Your task to perform on an android device: open app "ZOOM Cloud Meetings" (install if not already installed) and enter user name: "bauxite@icloud.com" and password: "dim" Image 0: 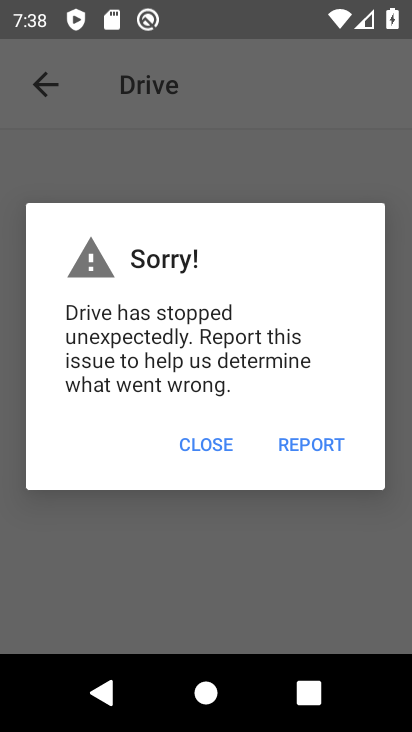
Step 0: press home button
Your task to perform on an android device: open app "ZOOM Cloud Meetings" (install if not already installed) and enter user name: "bauxite@icloud.com" and password: "dim" Image 1: 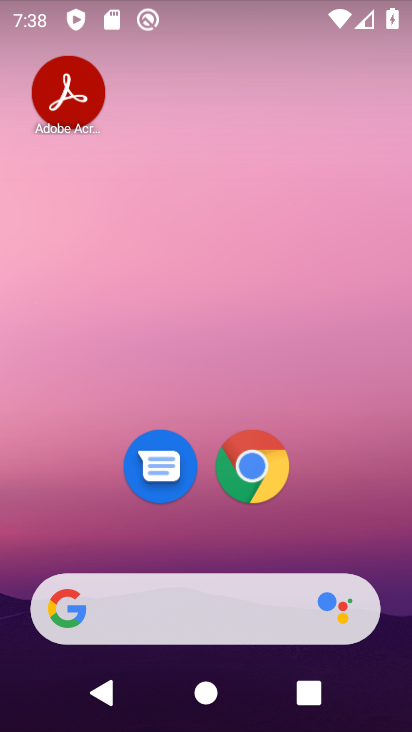
Step 1: drag from (157, 609) to (232, 96)
Your task to perform on an android device: open app "ZOOM Cloud Meetings" (install if not already installed) and enter user name: "bauxite@icloud.com" and password: "dim" Image 2: 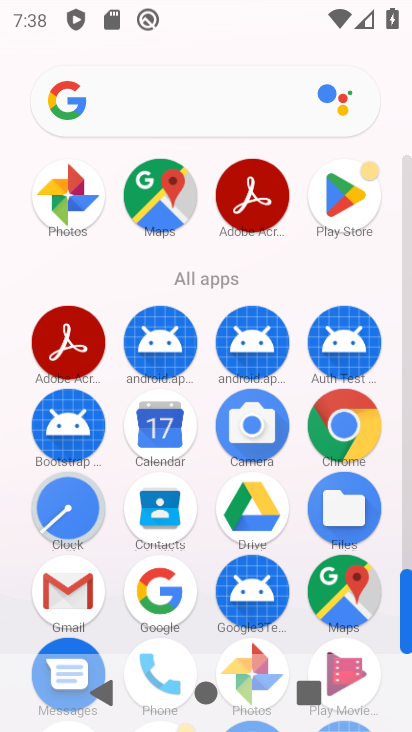
Step 2: click (342, 193)
Your task to perform on an android device: open app "ZOOM Cloud Meetings" (install if not already installed) and enter user name: "bauxite@icloud.com" and password: "dim" Image 3: 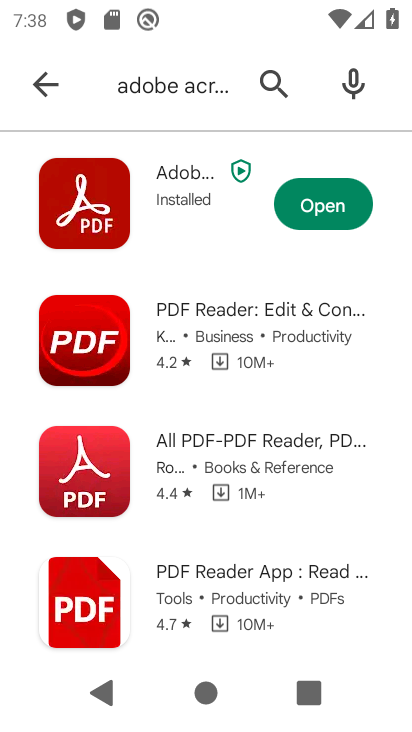
Step 3: press back button
Your task to perform on an android device: open app "ZOOM Cloud Meetings" (install if not already installed) and enter user name: "bauxite@icloud.com" and password: "dim" Image 4: 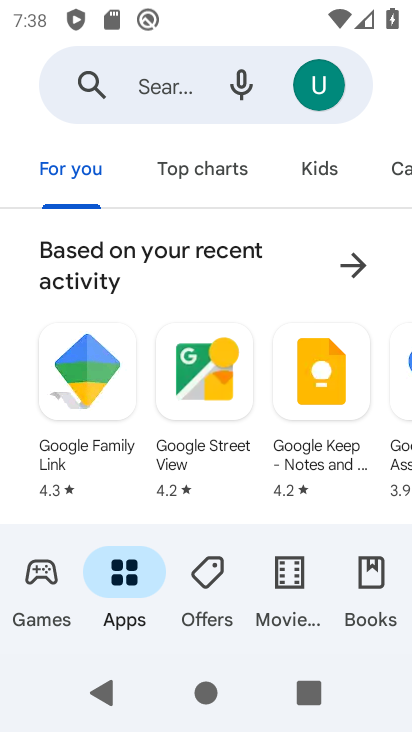
Step 4: click (185, 91)
Your task to perform on an android device: open app "ZOOM Cloud Meetings" (install if not already installed) and enter user name: "bauxite@icloud.com" and password: "dim" Image 5: 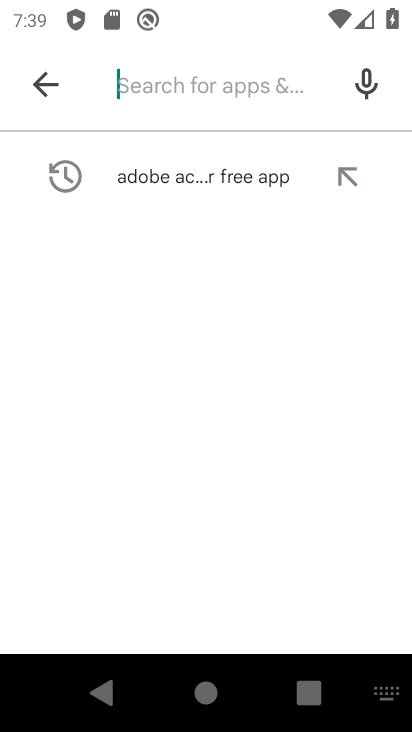
Step 5: click (152, 80)
Your task to perform on an android device: open app "ZOOM Cloud Meetings" (install if not already installed) and enter user name: "bauxite@icloud.com" and password: "dim" Image 6: 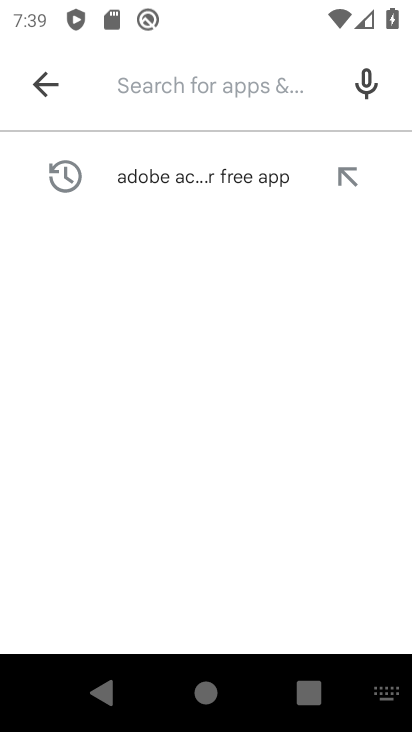
Step 6: type "ZOOM Cloud Meetings"
Your task to perform on an android device: open app "ZOOM Cloud Meetings" (install if not already installed) and enter user name: "bauxite@icloud.com" and password: "dim" Image 7: 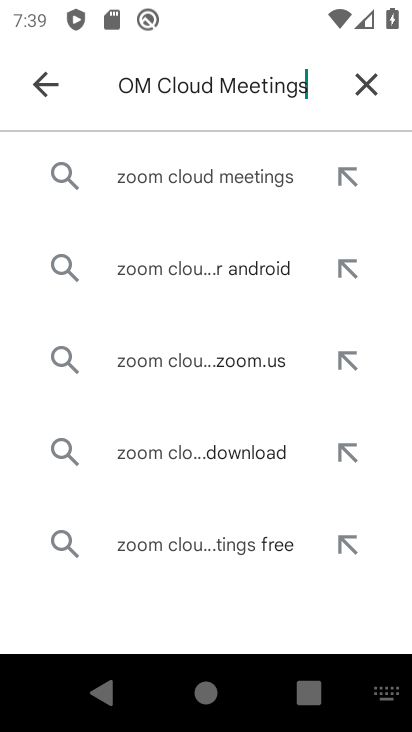
Step 7: click (233, 176)
Your task to perform on an android device: open app "ZOOM Cloud Meetings" (install if not already installed) and enter user name: "bauxite@icloud.com" and password: "dim" Image 8: 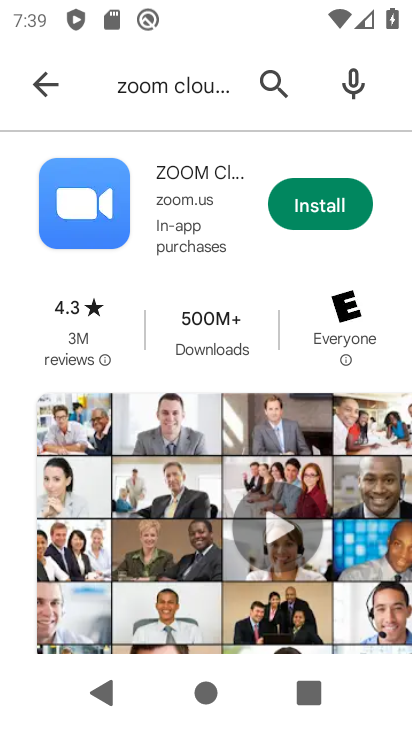
Step 8: click (323, 202)
Your task to perform on an android device: open app "ZOOM Cloud Meetings" (install if not already installed) and enter user name: "bauxite@icloud.com" and password: "dim" Image 9: 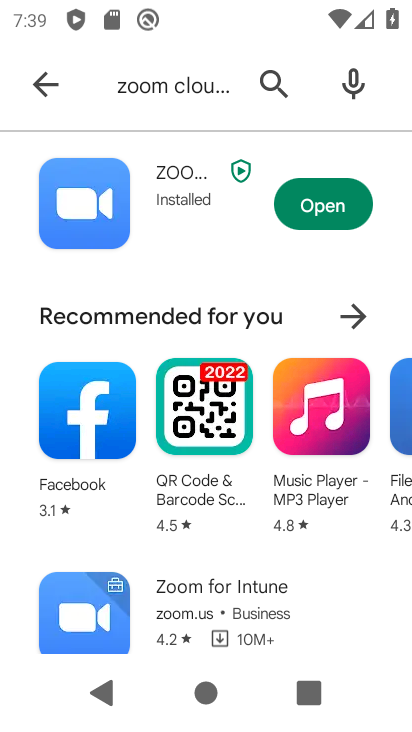
Step 9: click (311, 203)
Your task to perform on an android device: open app "ZOOM Cloud Meetings" (install if not already installed) and enter user name: "bauxite@icloud.com" and password: "dim" Image 10: 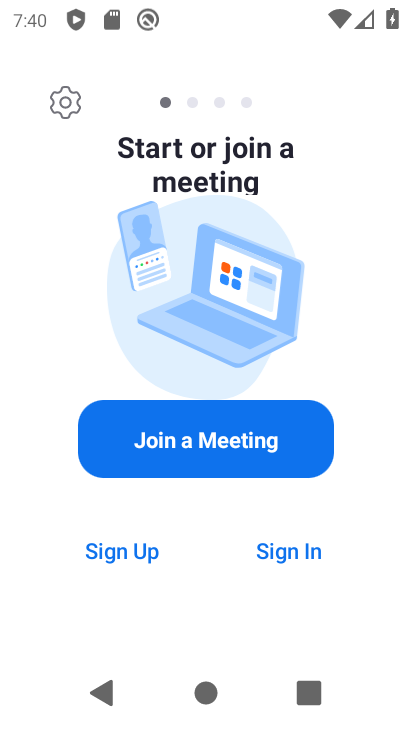
Step 10: click (296, 547)
Your task to perform on an android device: open app "ZOOM Cloud Meetings" (install if not already installed) and enter user name: "bauxite@icloud.com" and password: "dim" Image 11: 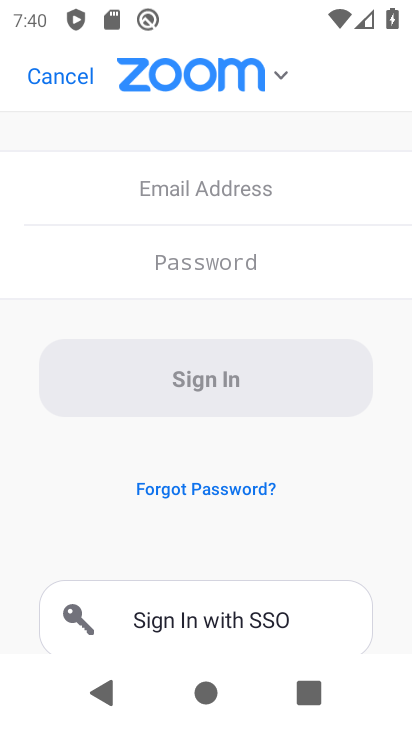
Step 11: click (215, 199)
Your task to perform on an android device: open app "ZOOM Cloud Meetings" (install if not already installed) and enter user name: "bauxite@icloud.com" and password: "dim" Image 12: 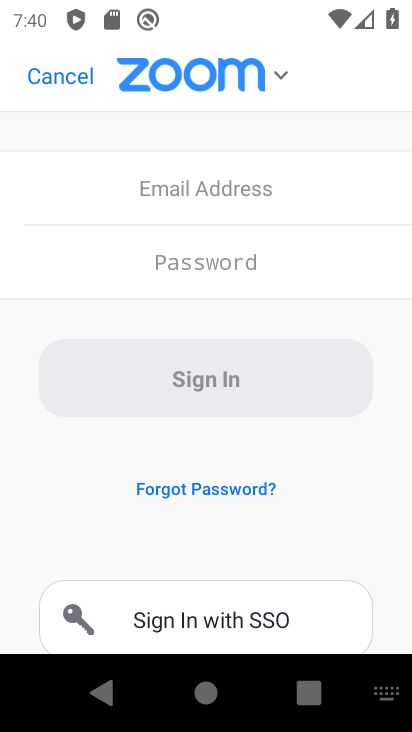
Step 12: click (206, 188)
Your task to perform on an android device: open app "ZOOM Cloud Meetings" (install if not already installed) and enter user name: "bauxite@icloud.com" and password: "dim" Image 13: 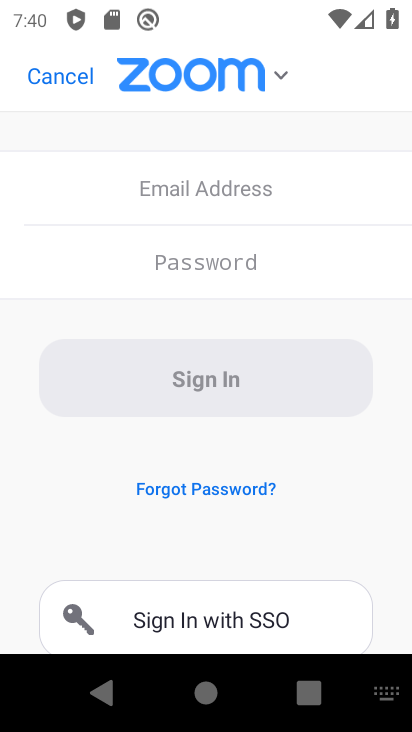
Step 13: type "bauxite@icloud.com"
Your task to perform on an android device: open app "ZOOM Cloud Meetings" (install if not already installed) and enter user name: "bauxite@icloud.com" and password: "dim" Image 14: 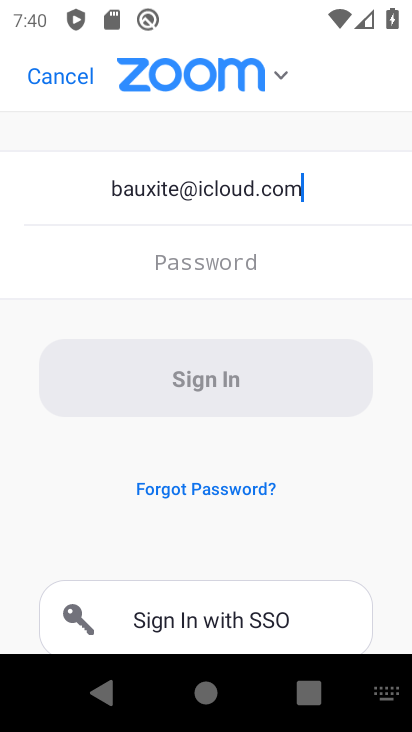
Step 14: type ""
Your task to perform on an android device: open app "ZOOM Cloud Meetings" (install if not already installed) and enter user name: "bauxite@icloud.com" and password: "dim" Image 15: 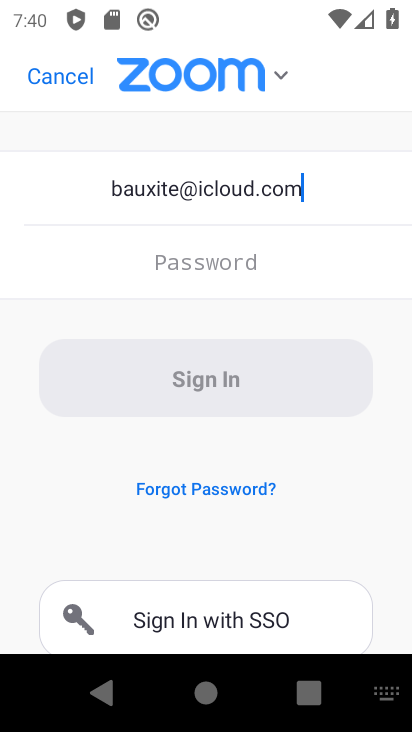
Step 15: click (258, 267)
Your task to perform on an android device: open app "ZOOM Cloud Meetings" (install if not already installed) and enter user name: "bauxite@icloud.com" and password: "dim" Image 16: 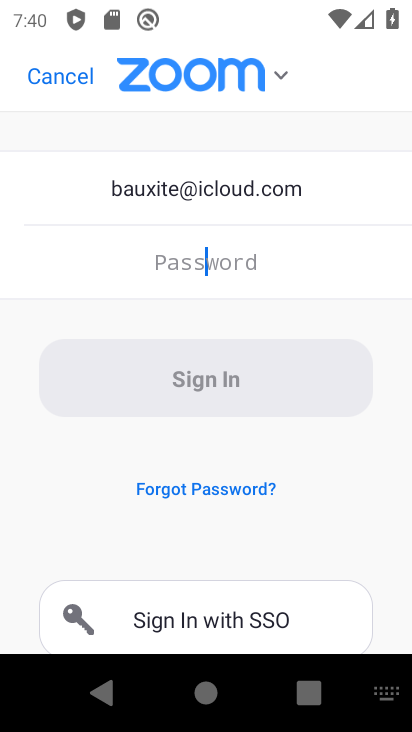
Step 16: type "dim"
Your task to perform on an android device: open app "ZOOM Cloud Meetings" (install if not already installed) and enter user name: "bauxite@icloud.com" and password: "dim" Image 17: 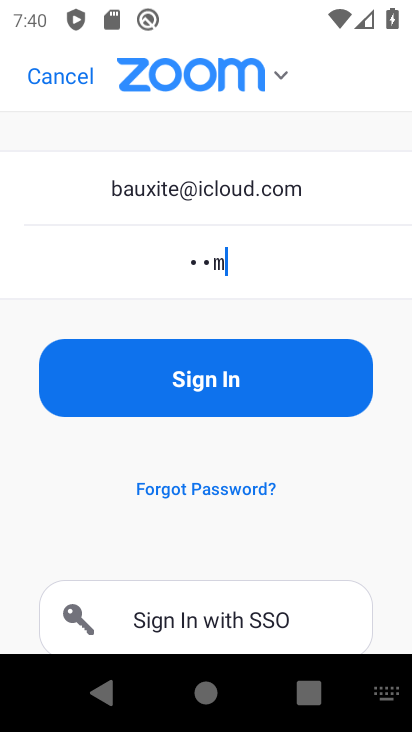
Step 17: type ""
Your task to perform on an android device: open app "ZOOM Cloud Meetings" (install if not already installed) and enter user name: "bauxite@icloud.com" and password: "dim" Image 18: 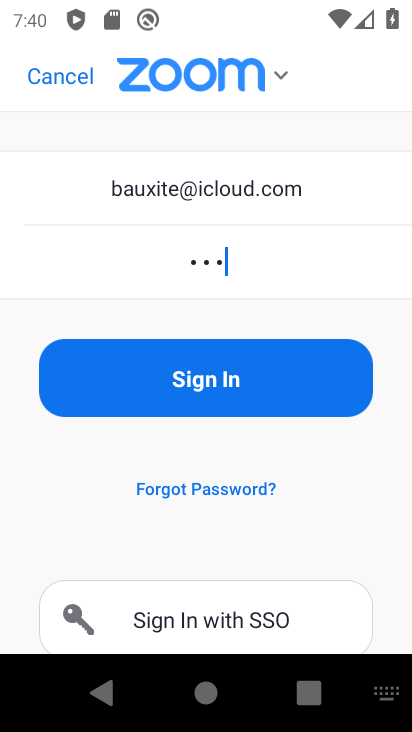
Step 18: task complete